Your task to perform on an android device: toggle wifi Image 0: 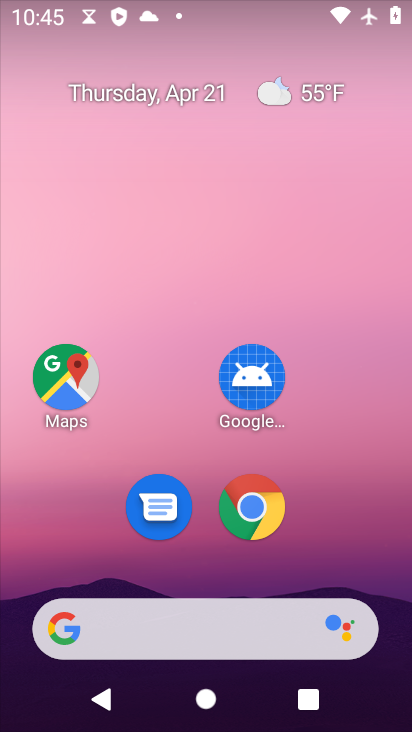
Step 0: drag from (255, 494) to (304, 131)
Your task to perform on an android device: toggle wifi Image 1: 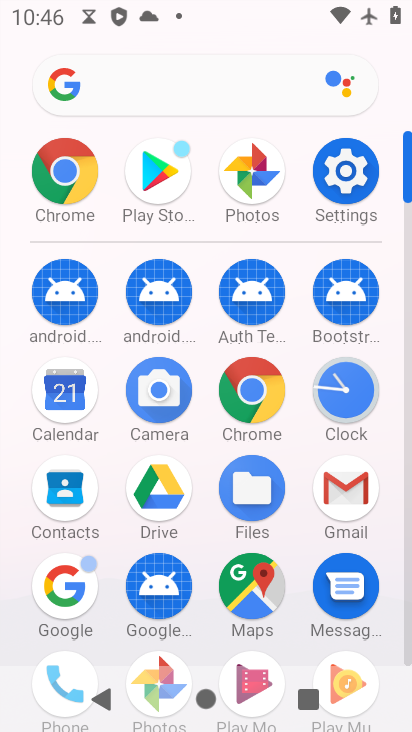
Step 1: click (339, 174)
Your task to perform on an android device: toggle wifi Image 2: 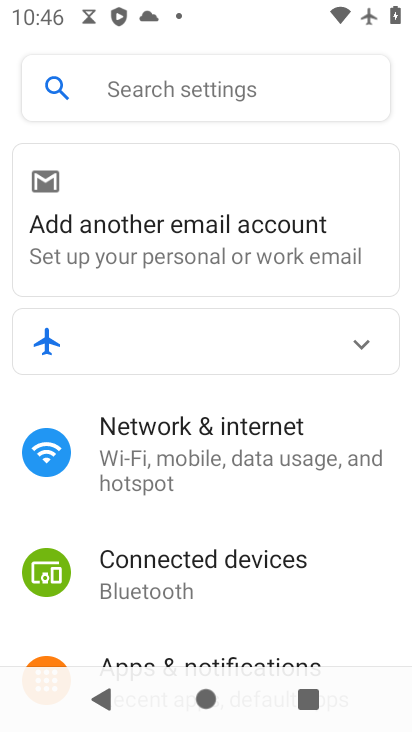
Step 2: click (236, 435)
Your task to perform on an android device: toggle wifi Image 3: 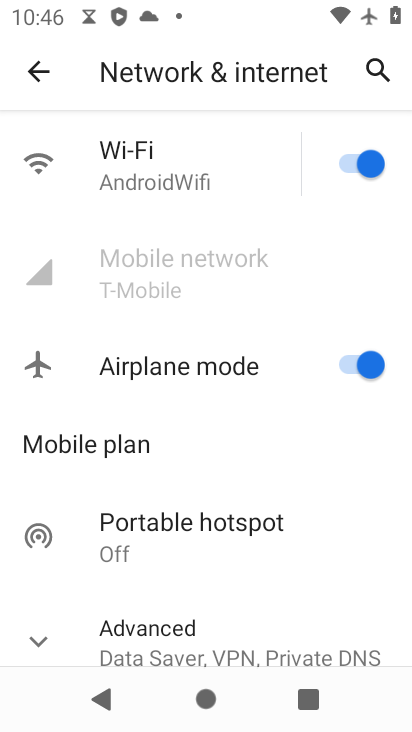
Step 3: click (342, 153)
Your task to perform on an android device: toggle wifi Image 4: 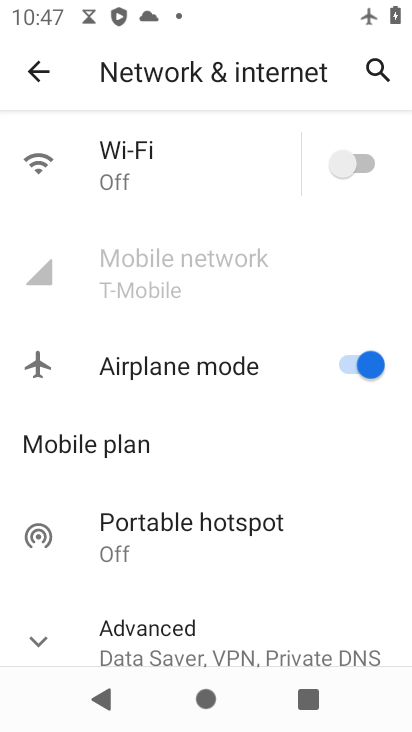
Step 4: task complete